Your task to perform on an android device: Open settings on Google Maps Image 0: 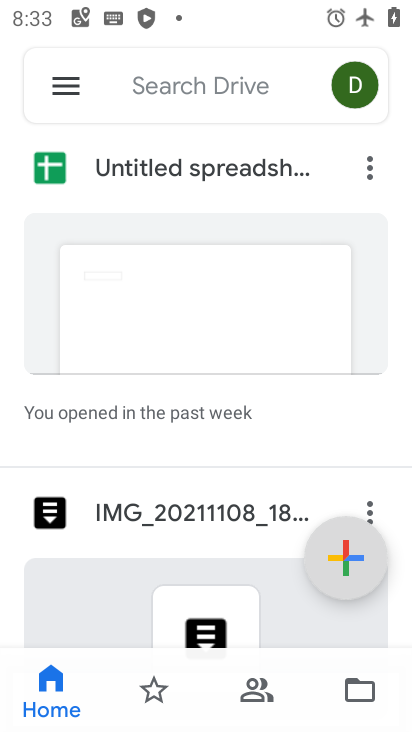
Step 0: press home button
Your task to perform on an android device: Open settings on Google Maps Image 1: 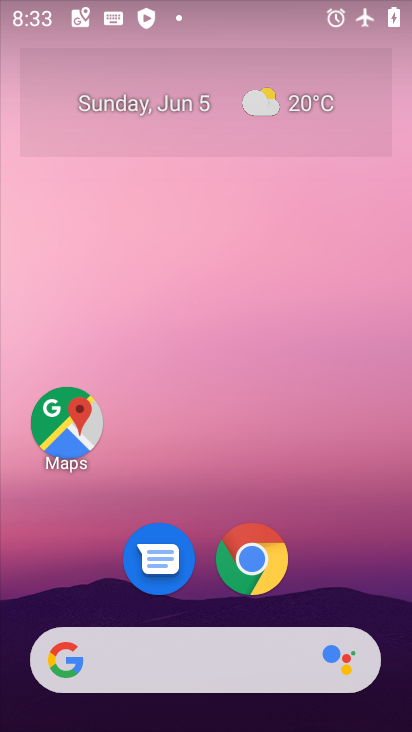
Step 1: click (76, 428)
Your task to perform on an android device: Open settings on Google Maps Image 2: 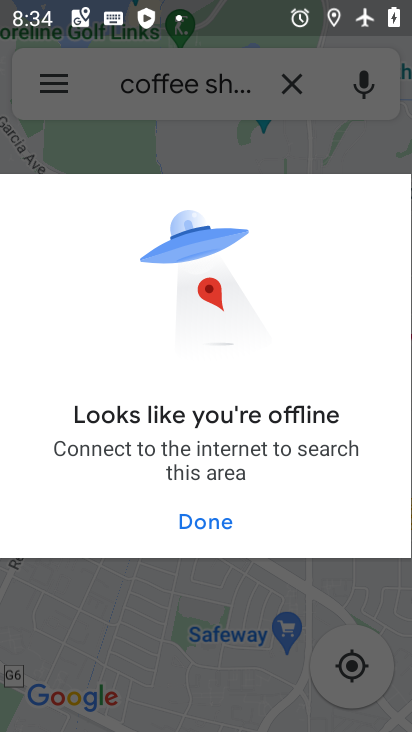
Step 2: click (228, 528)
Your task to perform on an android device: Open settings on Google Maps Image 3: 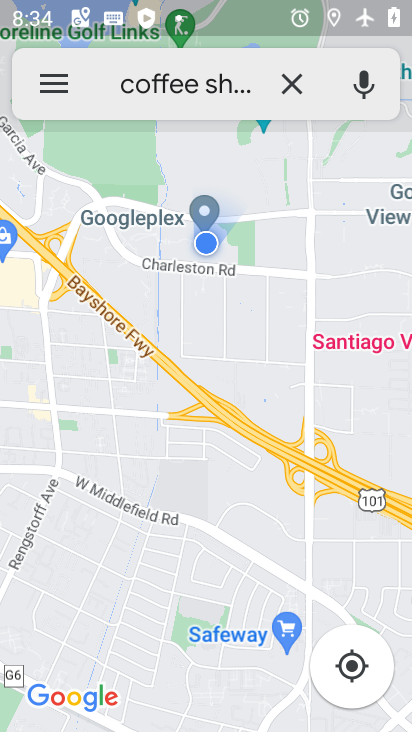
Step 3: click (51, 87)
Your task to perform on an android device: Open settings on Google Maps Image 4: 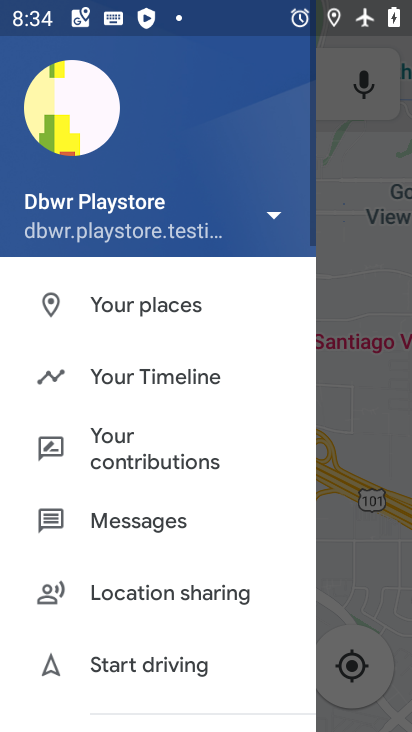
Step 4: drag from (189, 629) to (195, 87)
Your task to perform on an android device: Open settings on Google Maps Image 5: 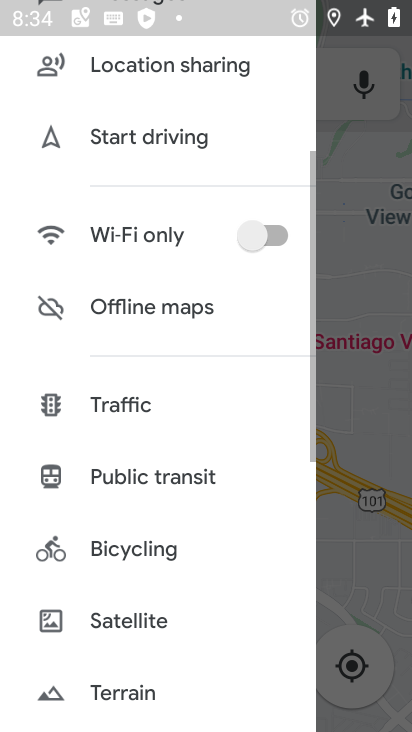
Step 5: click (197, 83)
Your task to perform on an android device: Open settings on Google Maps Image 6: 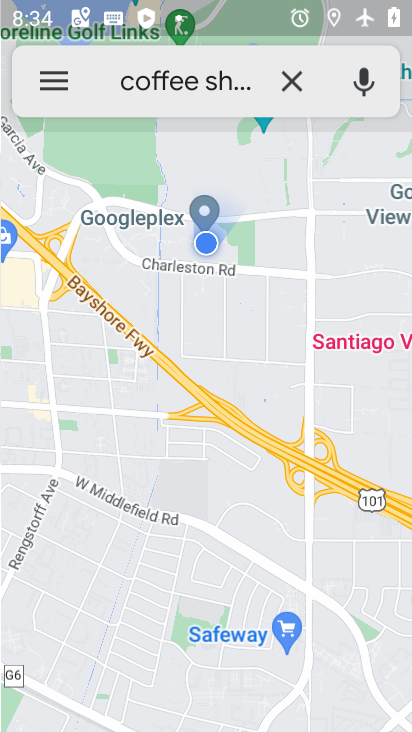
Step 6: drag from (122, 656) to (196, 183)
Your task to perform on an android device: Open settings on Google Maps Image 7: 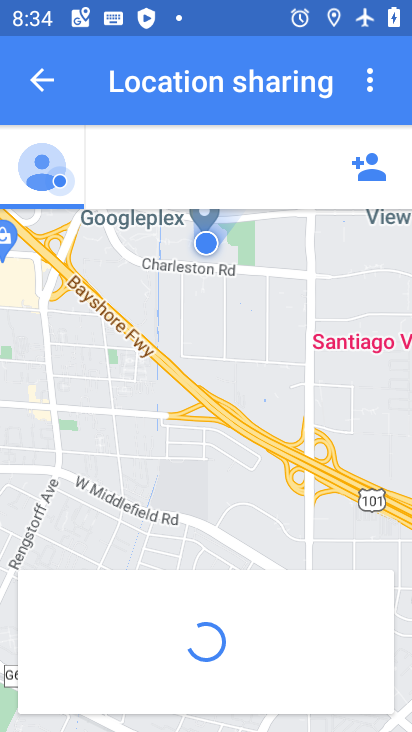
Step 7: click (50, 94)
Your task to perform on an android device: Open settings on Google Maps Image 8: 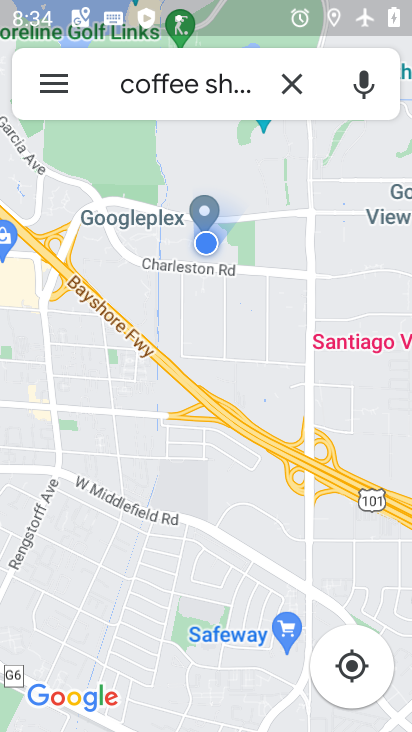
Step 8: click (50, 94)
Your task to perform on an android device: Open settings on Google Maps Image 9: 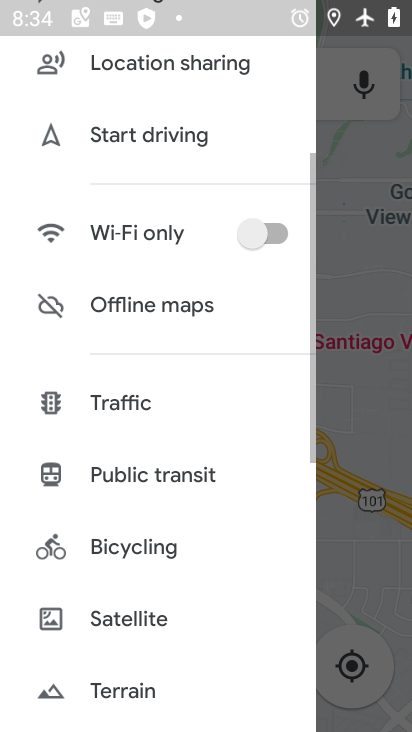
Step 9: drag from (114, 613) to (219, 79)
Your task to perform on an android device: Open settings on Google Maps Image 10: 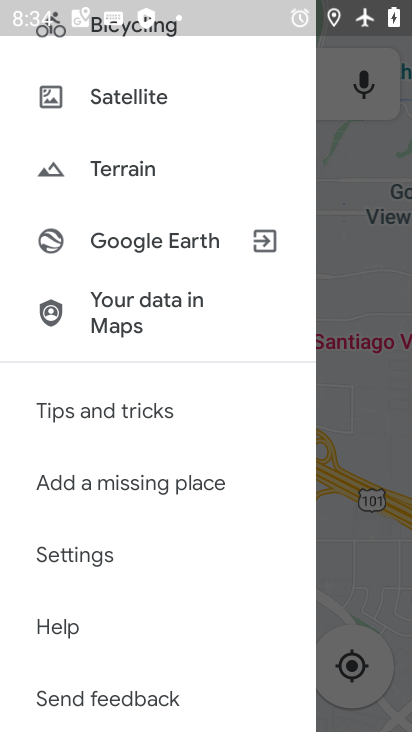
Step 10: click (108, 549)
Your task to perform on an android device: Open settings on Google Maps Image 11: 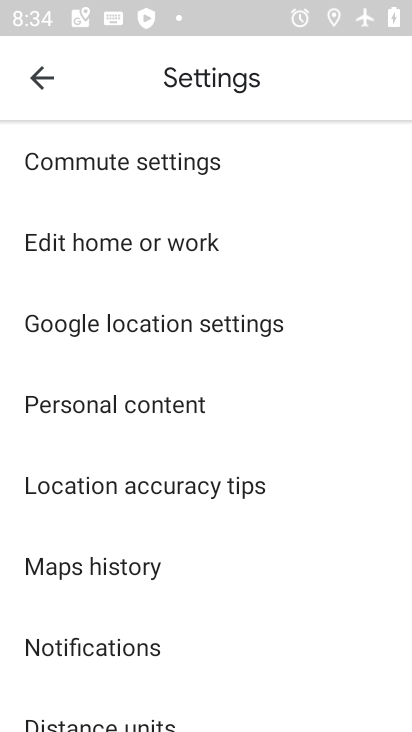
Step 11: task complete